Your task to perform on an android device: Open eBay Image 0: 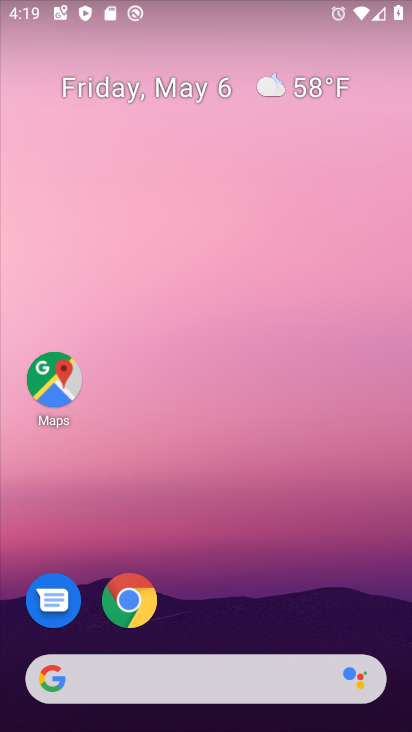
Step 0: click (139, 613)
Your task to perform on an android device: Open eBay Image 1: 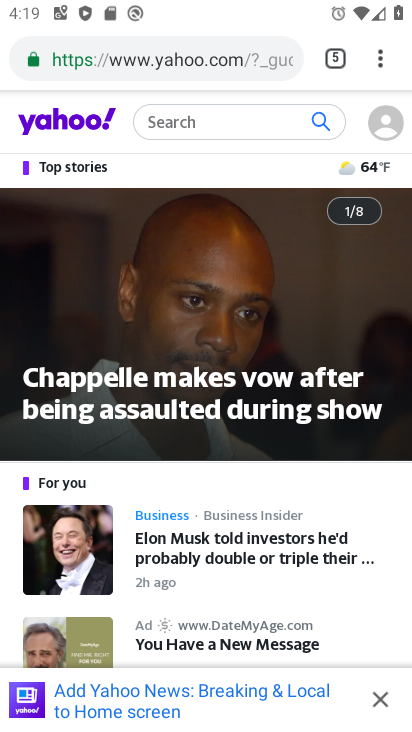
Step 1: click (211, 59)
Your task to perform on an android device: Open eBay Image 2: 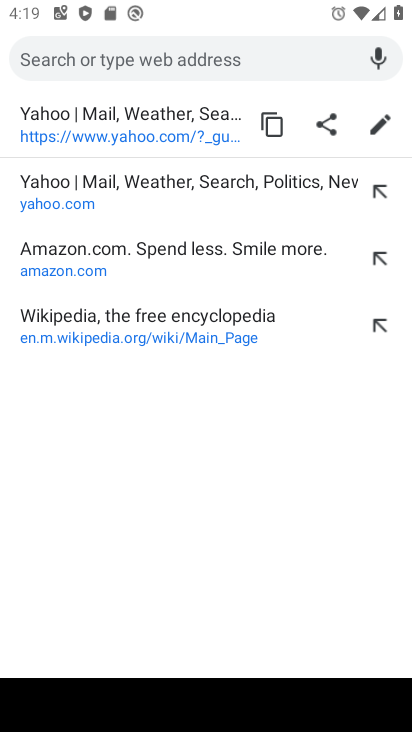
Step 2: type "eBay"
Your task to perform on an android device: Open eBay Image 3: 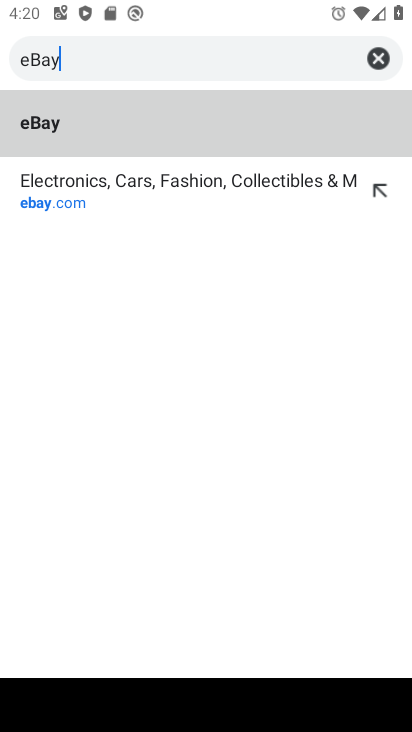
Step 3: click (105, 128)
Your task to perform on an android device: Open eBay Image 4: 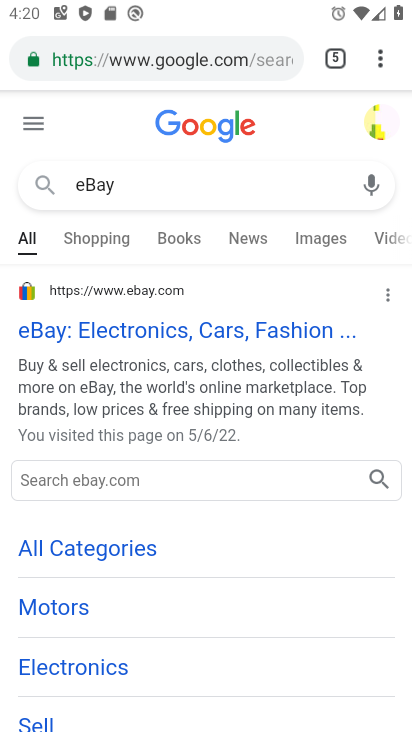
Step 4: task complete